Your task to perform on an android device: open chrome privacy settings Image 0: 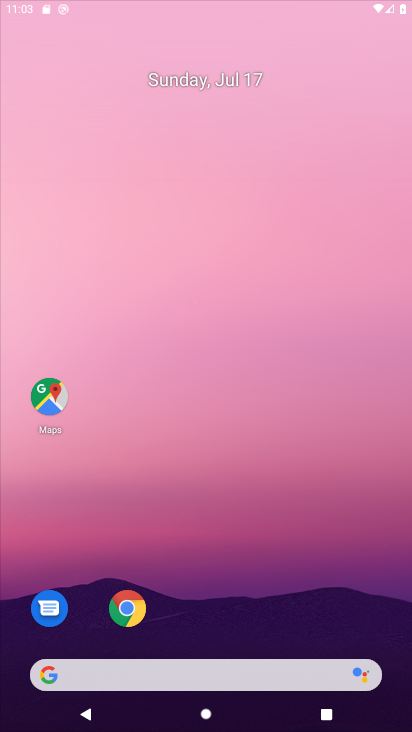
Step 0: drag from (238, 579) to (228, 326)
Your task to perform on an android device: open chrome privacy settings Image 1: 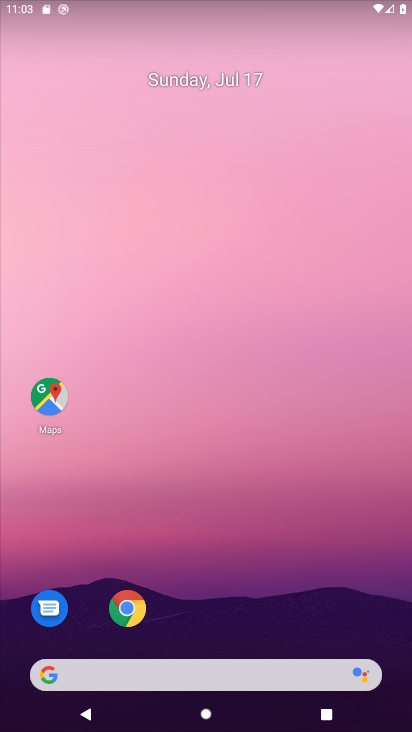
Step 1: drag from (241, 636) to (250, 362)
Your task to perform on an android device: open chrome privacy settings Image 2: 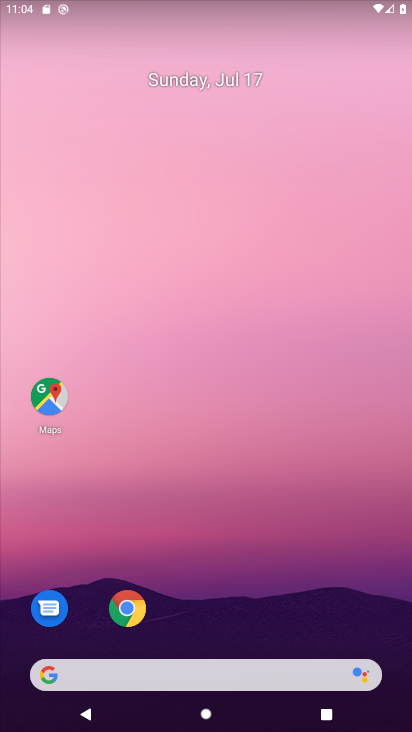
Step 2: click (126, 613)
Your task to perform on an android device: open chrome privacy settings Image 3: 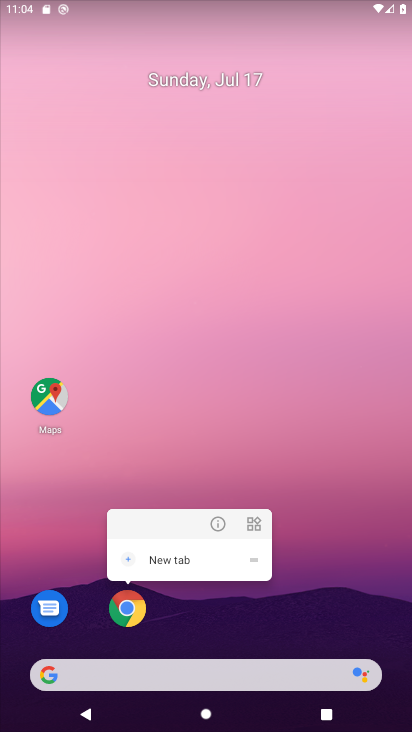
Step 3: click (130, 613)
Your task to perform on an android device: open chrome privacy settings Image 4: 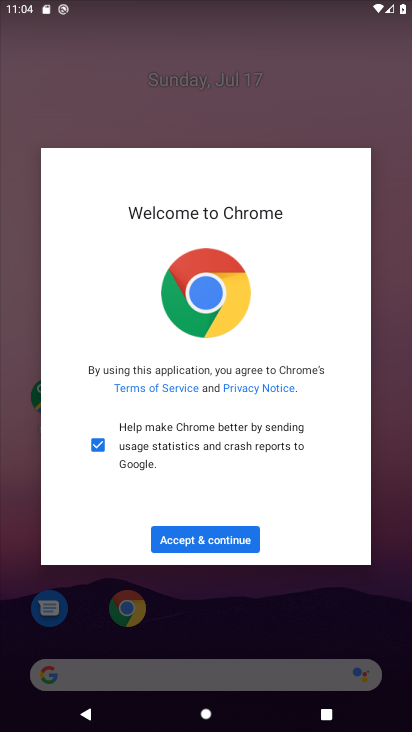
Step 4: click (209, 533)
Your task to perform on an android device: open chrome privacy settings Image 5: 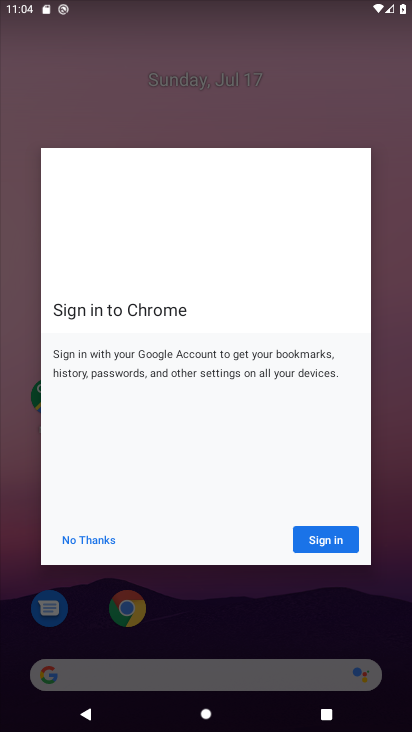
Step 5: click (357, 535)
Your task to perform on an android device: open chrome privacy settings Image 6: 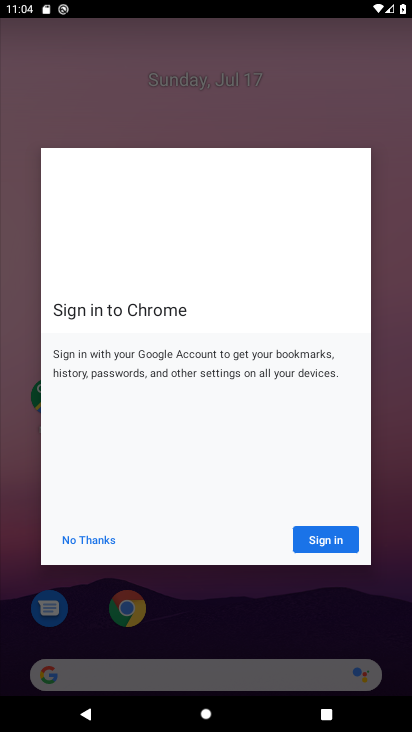
Step 6: click (326, 535)
Your task to perform on an android device: open chrome privacy settings Image 7: 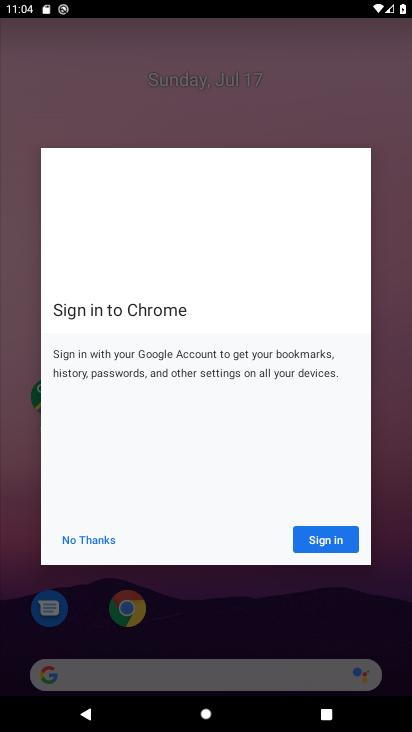
Step 7: click (326, 535)
Your task to perform on an android device: open chrome privacy settings Image 8: 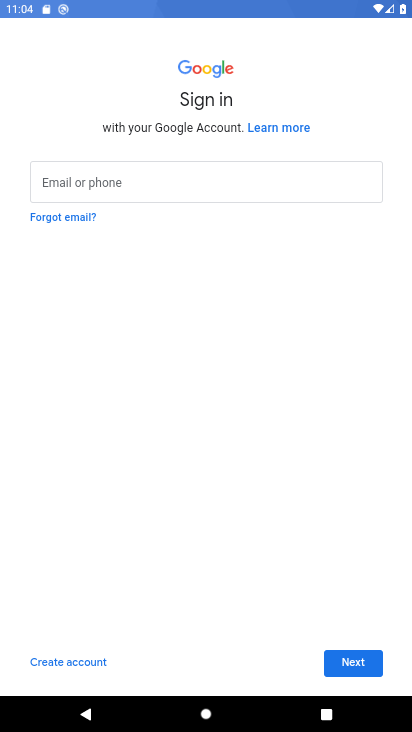
Step 8: task complete